Your task to perform on an android device: turn vacation reply on in the gmail app Image 0: 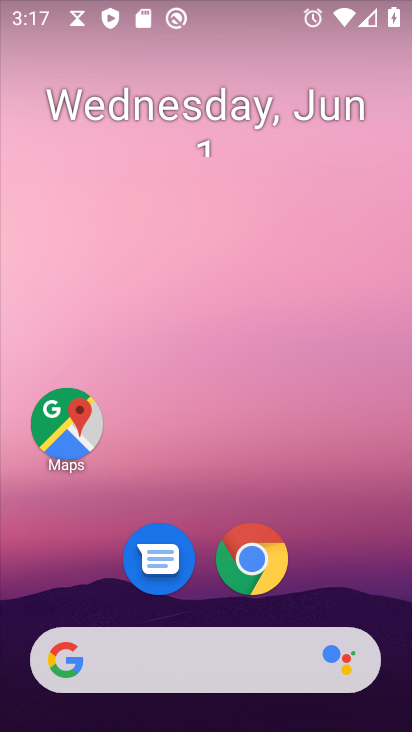
Step 0: drag from (313, 591) to (246, 26)
Your task to perform on an android device: turn vacation reply on in the gmail app Image 1: 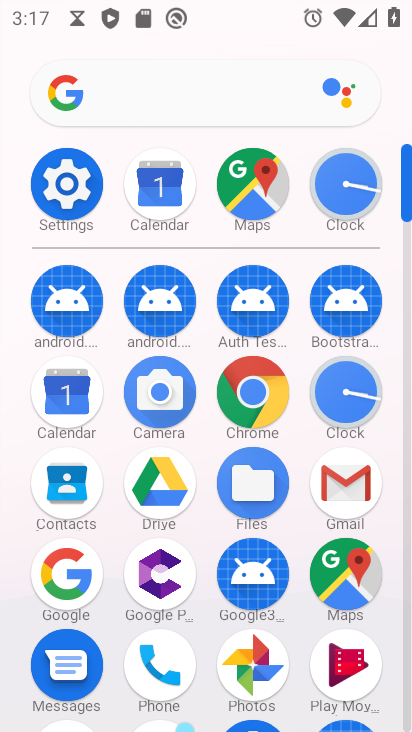
Step 1: click (346, 485)
Your task to perform on an android device: turn vacation reply on in the gmail app Image 2: 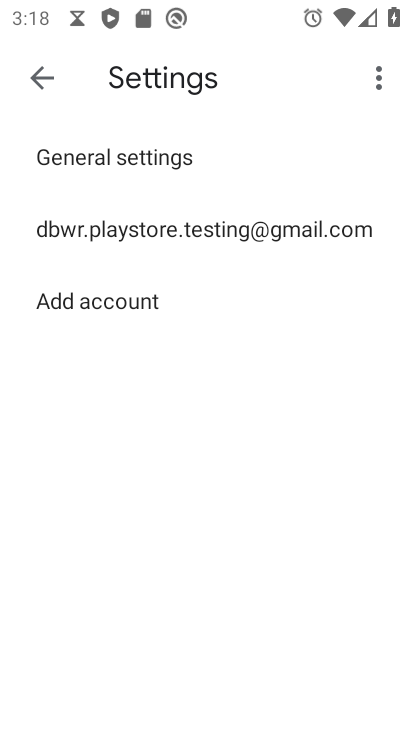
Step 2: click (105, 238)
Your task to perform on an android device: turn vacation reply on in the gmail app Image 3: 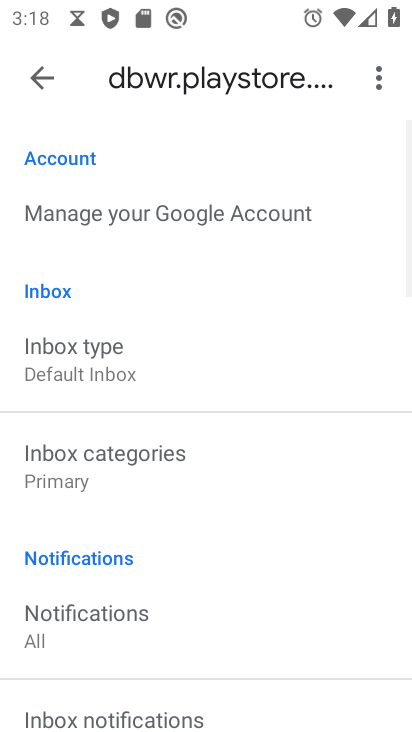
Step 3: drag from (199, 582) to (178, 154)
Your task to perform on an android device: turn vacation reply on in the gmail app Image 4: 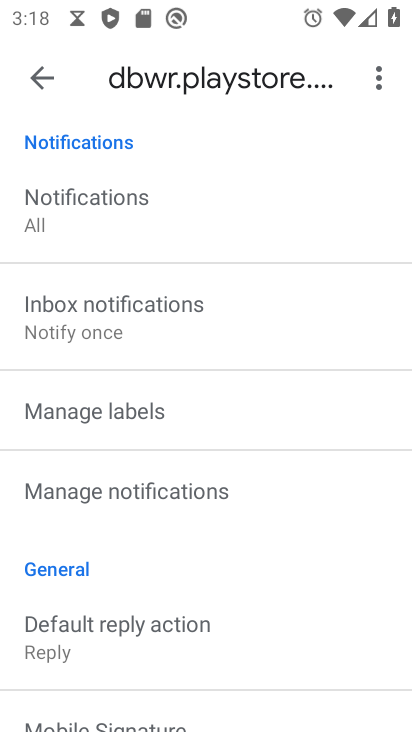
Step 4: drag from (131, 598) to (138, 194)
Your task to perform on an android device: turn vacation reply on in the gmail app Image 5: 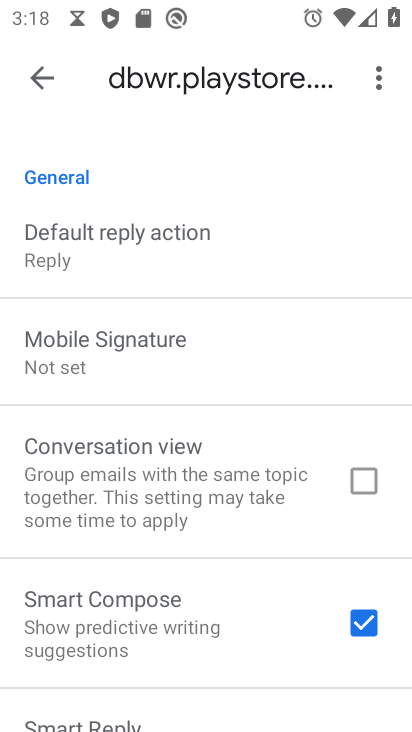
Step 5: drag from (145, 592) to (145, 263)
Your task to perform on an android device: turn vacation reply on in the gmail app Image 6: 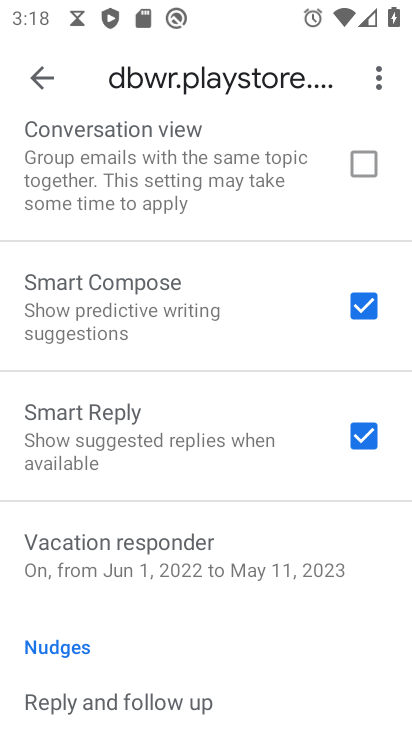
Step 6: click (109, 572)
Your task to perform on an android device: turn vacation reply on in the gmail app Image 7: 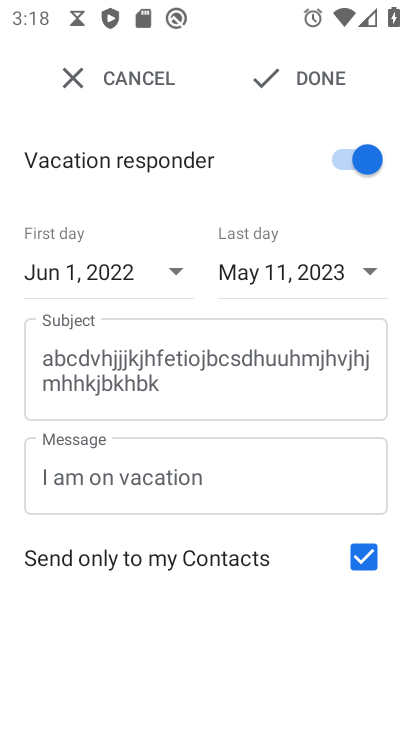
Step 7: click (311, 78)
Your task to perform on an android device: turn vacation reply on in the gmail app Image 8: 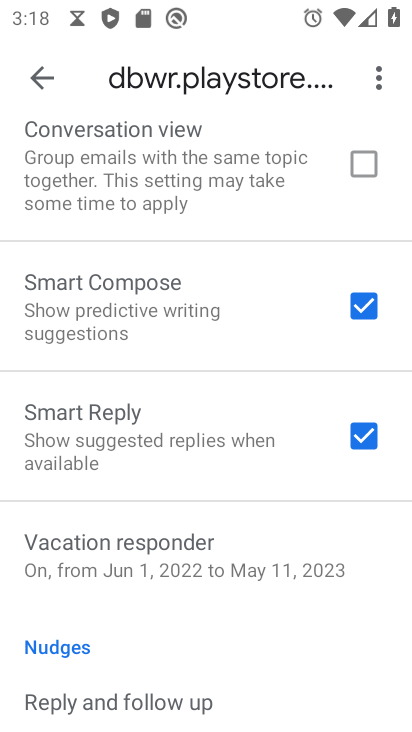
Step 8: task complete